Your task to perform on an android device: When is my next meeting? Image 0: 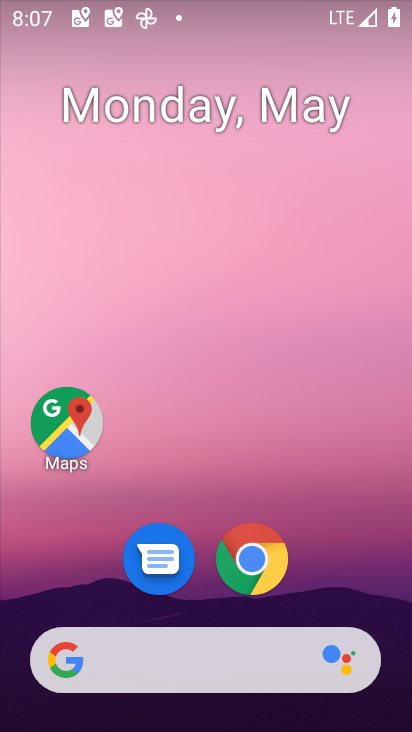
Step 0: drag from (389, 636) to (231, 94)
Your task to perform on an android device: When is my next meeting? Image 1: 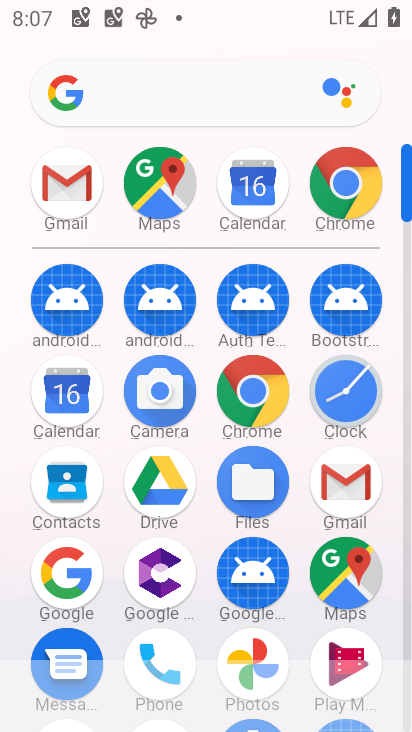
Step 1: click (61, 409)
Your task to perform on an android device: When is my next meeting? Image 2: 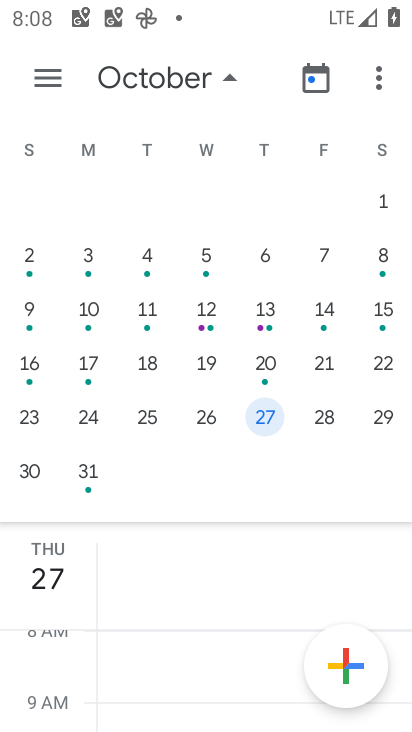
Step 2: click (41, 90)
Your task to perform on an android device: When is my next meeting? Image 3: 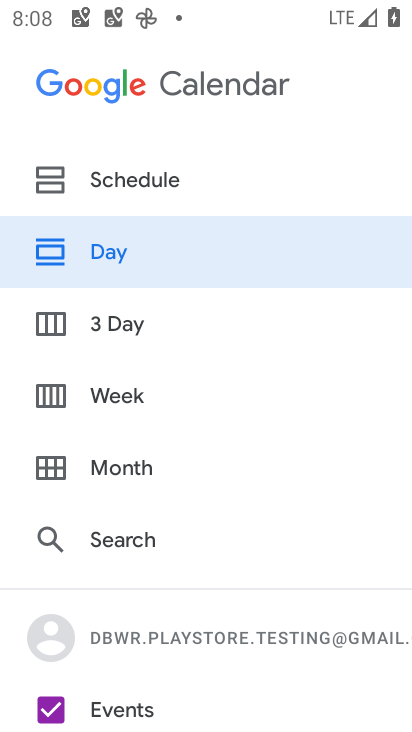
Step 3: click (133, 187)
Your task to perform on an android device: When is my next meeting? Image 4: 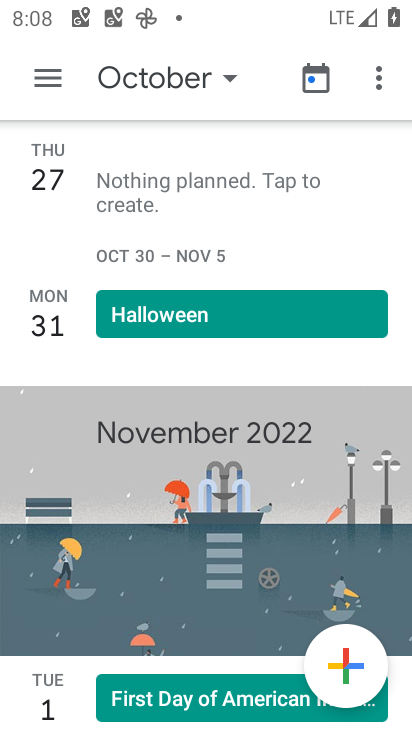
Step 4: task complete